Your task to perform on an android device: Open battery settings Image 0: 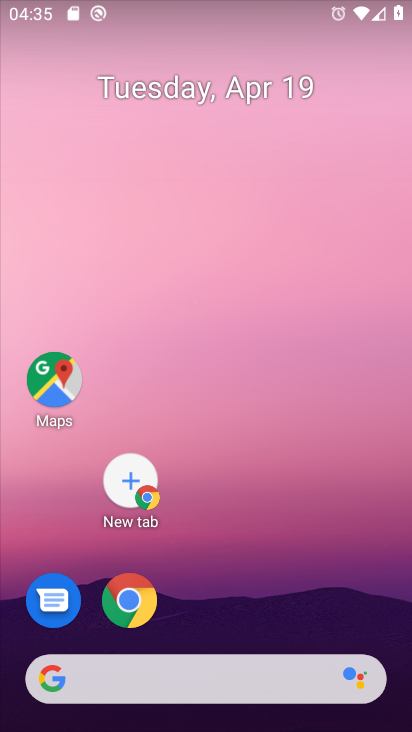
Step 0: drag from (229, 8) to (225, 449)
Your task to perform on an android device: Open battery settings Image 1: 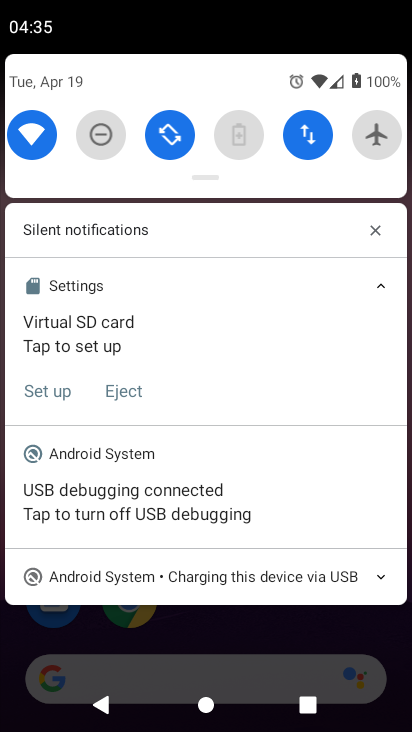
Step 1: drag from (217, 71) to (198, 614)
Your task to perform on an android device: Open battery settings Image 2: 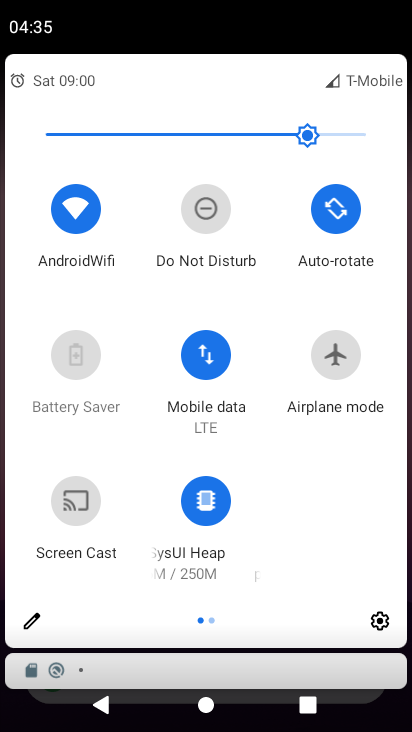
Step 2: click (376, 615)
Your task to perform on an android device: Open battery settings Image 3: 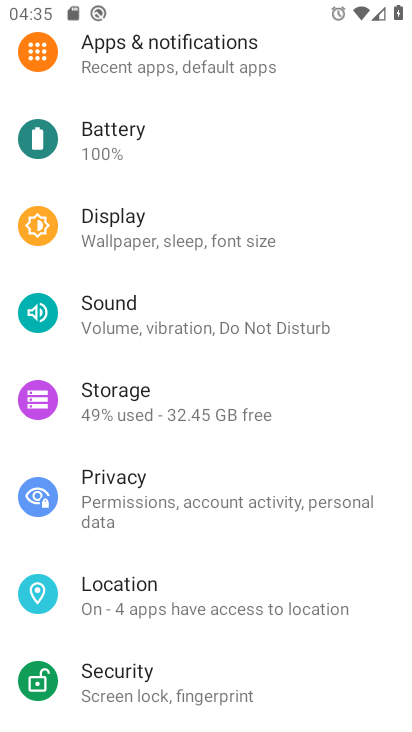
Step 3: click (115, 135)
Your task to perform on an android device: Open battery settings Image 4: 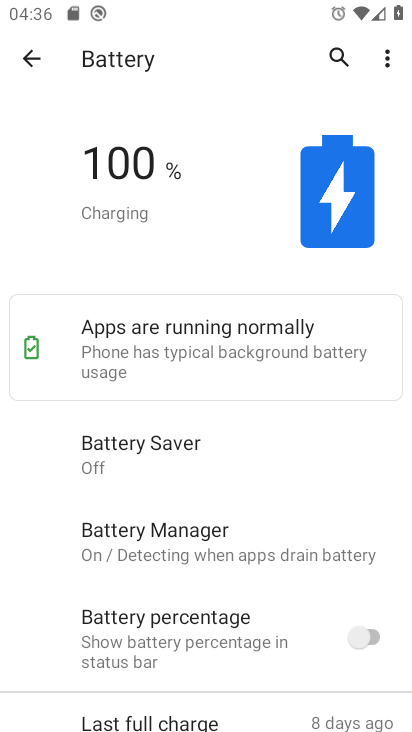
Step 4: click (393, 54)
Your task to perform on an android device: Open battery settings Image 5: 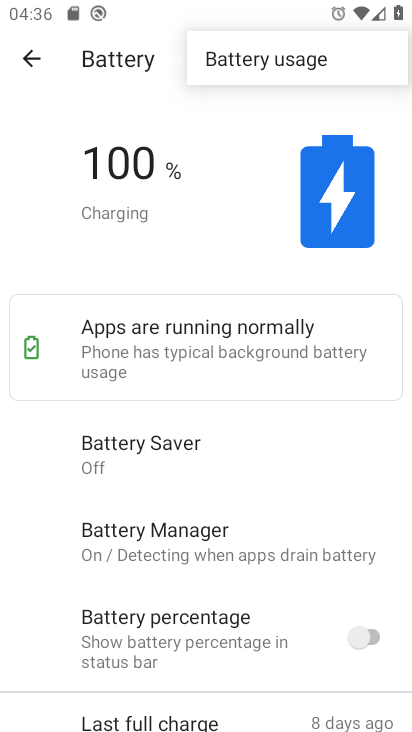
Step 5: click (351, 58)
Your task to perform on an android device: Open battery settings Image 6: 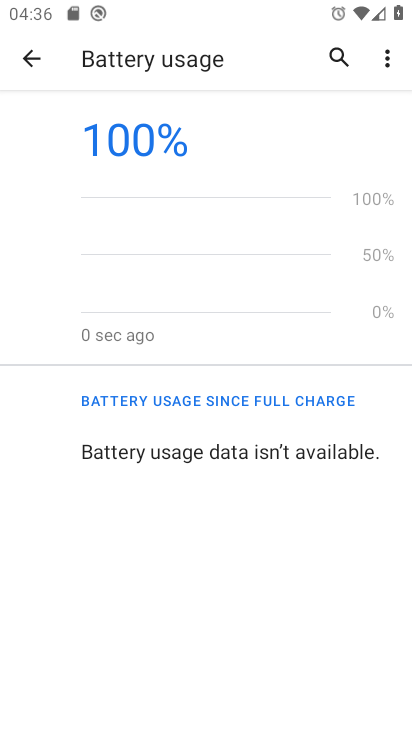
Step 6: task complete